Your task to perform on an android device: Open Maps and search for coffee Image 0: 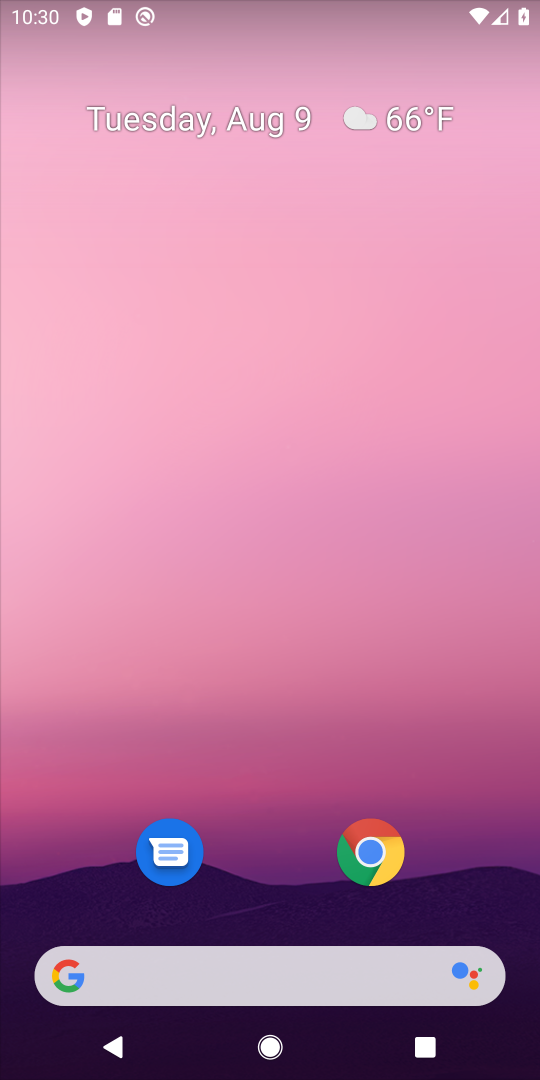
Step 0: drag from (19, 702) to (422, 742)
Your task to perform on an android device: Open Maps and search for coffee Image 1: 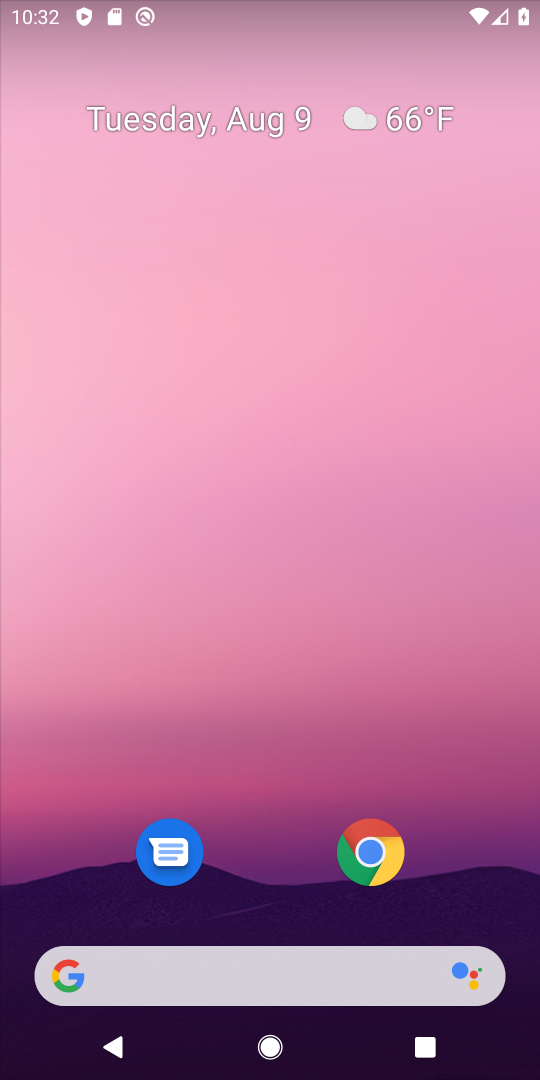
Step 1: drag from (271, 801) to (346, 89)
Your task to perform on an android device: Open Maps and search for coffee Image 2: 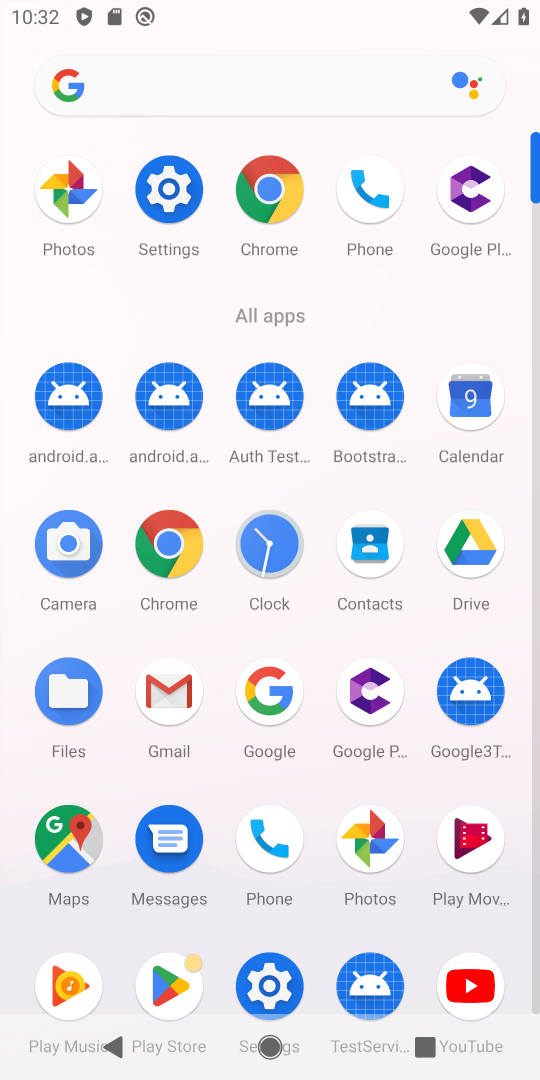
Step 2: click (77, 863)
Your task to perform on an android device: Open Maps and search for coffee Image 3: 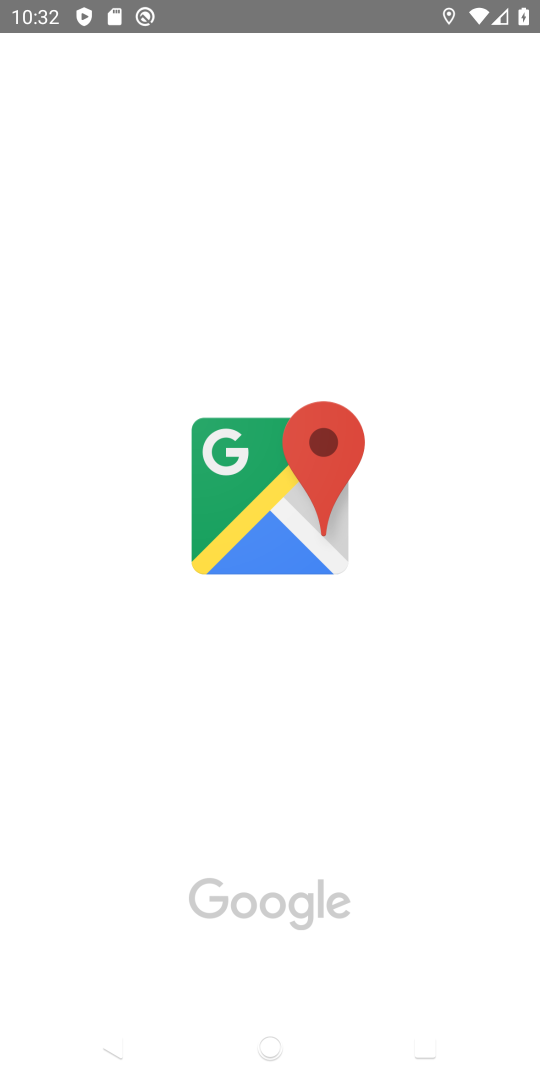
Step 3: click (77, 863)
Your task to perform on an android device: Open Maps and search for coffee Image 4: 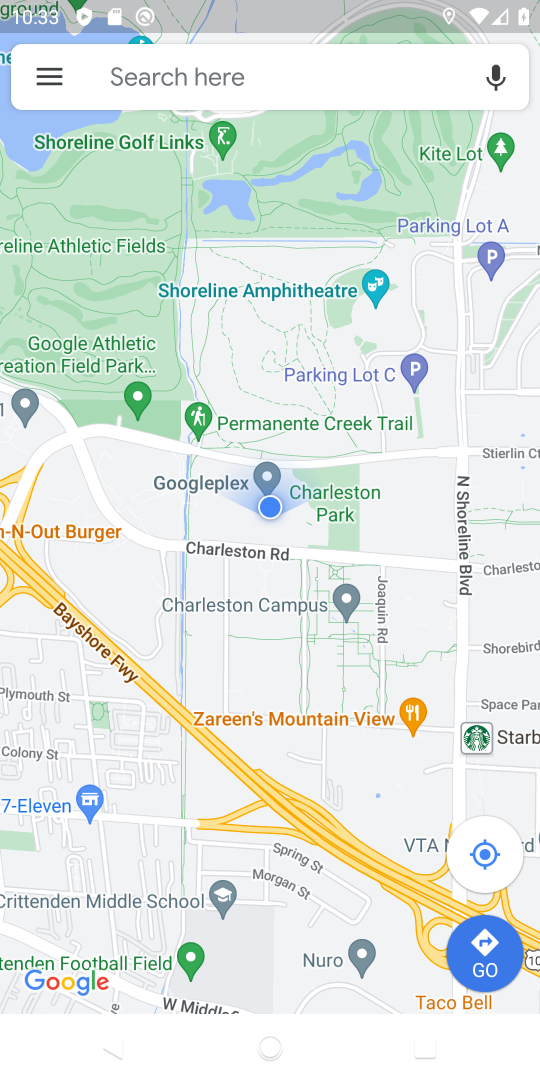
Step 4: click (103, 62)
Your task to perform on an android device: Open Maps and search for coffee Image 5: 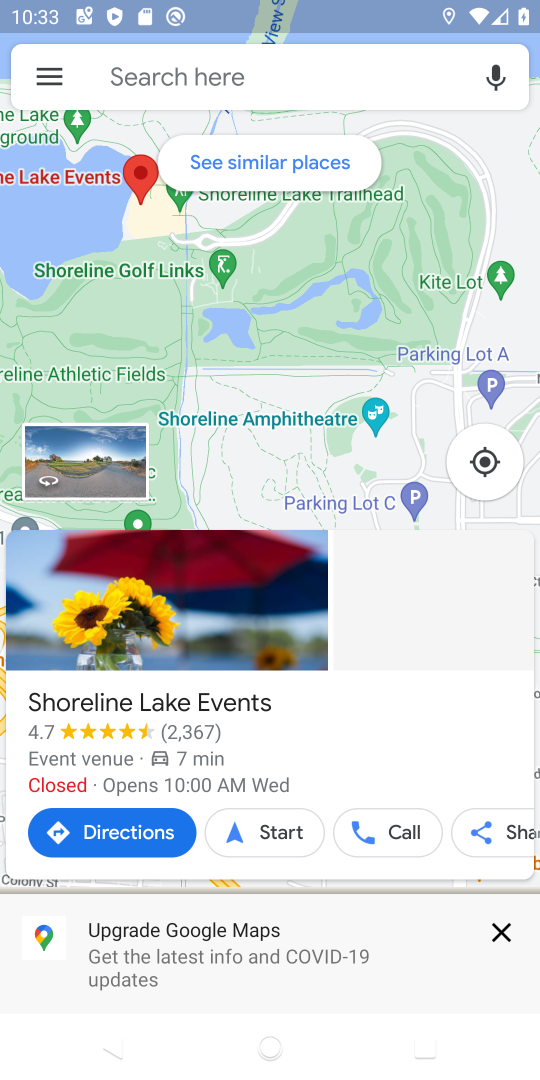
Step 5: click (227, 67)
Your task to perform on an android device: Open Maps and search for coffee Image 6: 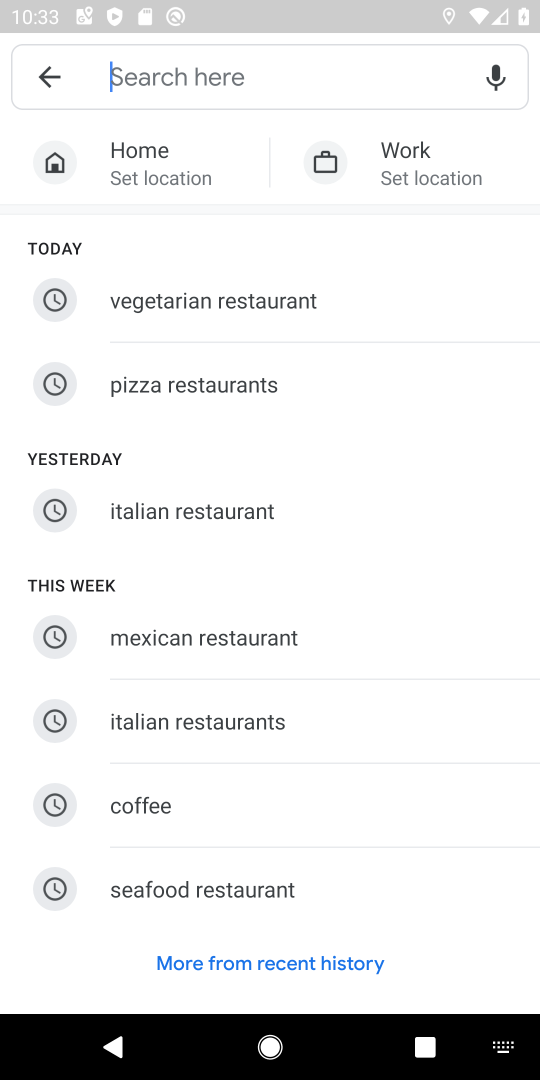
Step 6: click (147, 820)
Your task to perform on an android device: Open Maps and search for coffee Image 7: 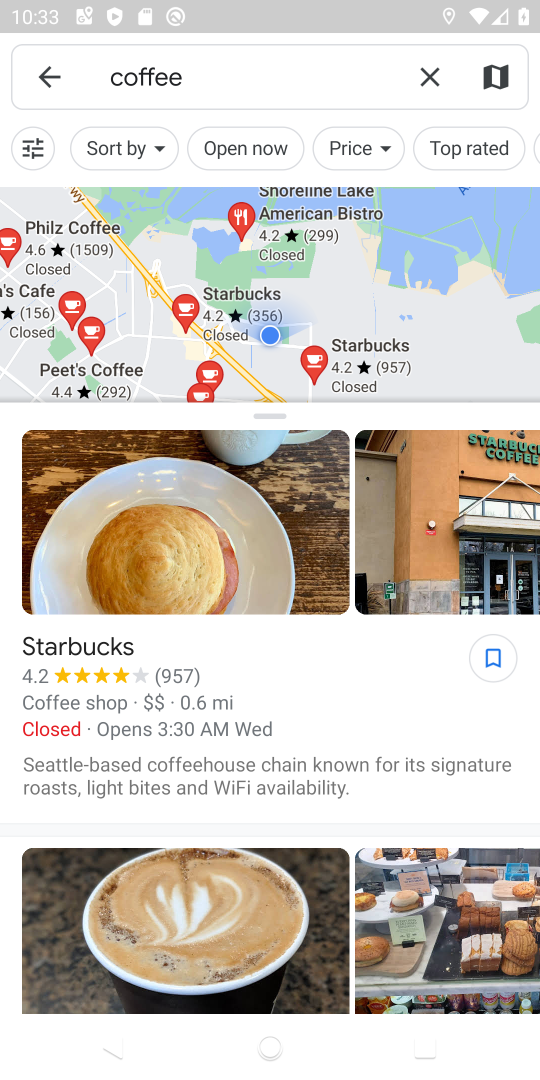
Step 7: task complete